Your task to perform on an android device: Is it going to rain today? Image 0: 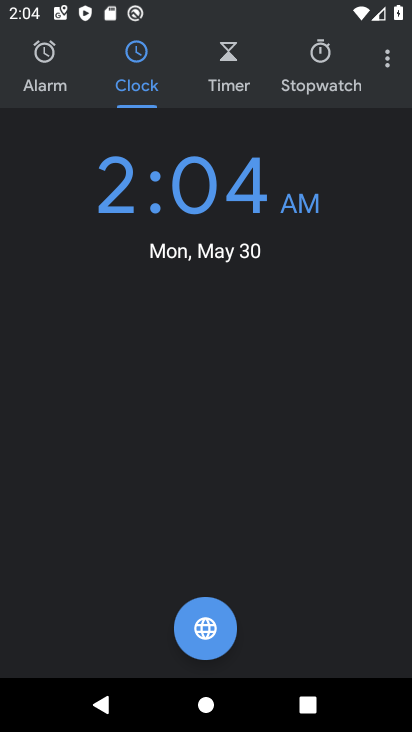
Step 0: press home button
Your task to perform on an android device: Is it going to rain today? Image 1: 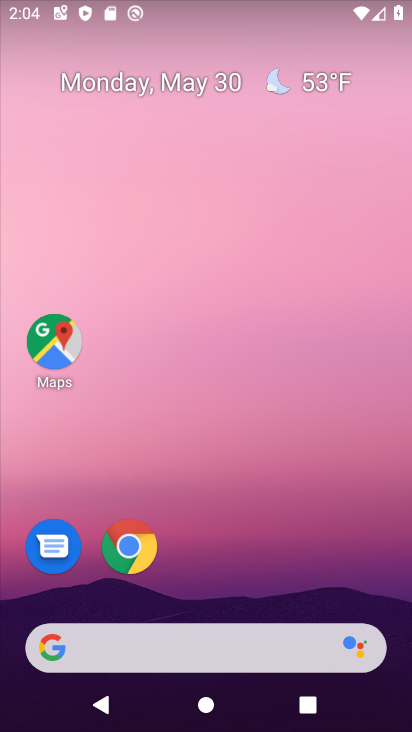
Step 1: click (327, 79)
Your task to perform on an android device: Is it going to rain today? Image 2: 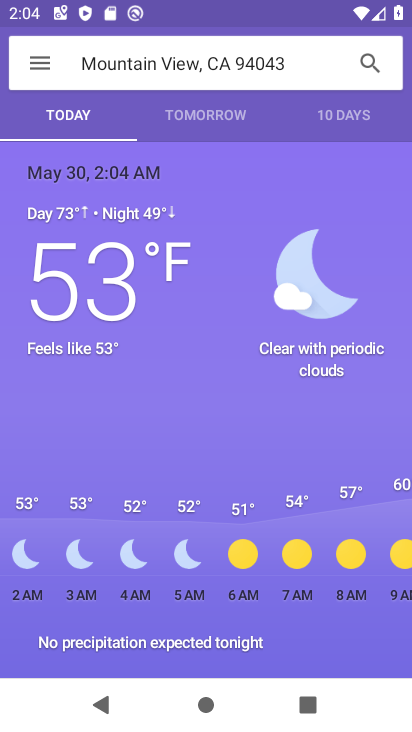
Step 2: task complete